Your task to perform on an android device: toggle pop-ups in chrome Image 0: 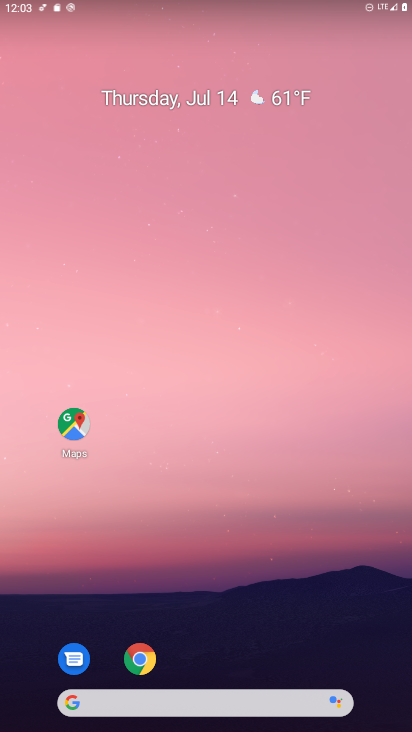
Step 0: click (141, 660)
Your task to perform on an android device: toggle pop-ups in chrome Image 1: 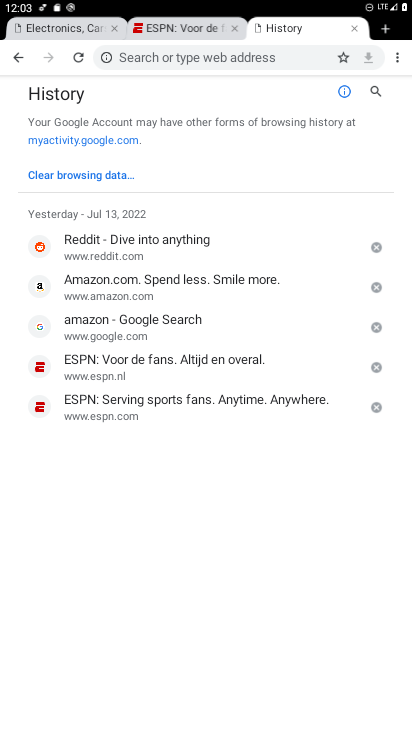
Step 1: click (396, 59)
Your task to perform on an android device: toggle pop-ups in chrome Image 2: 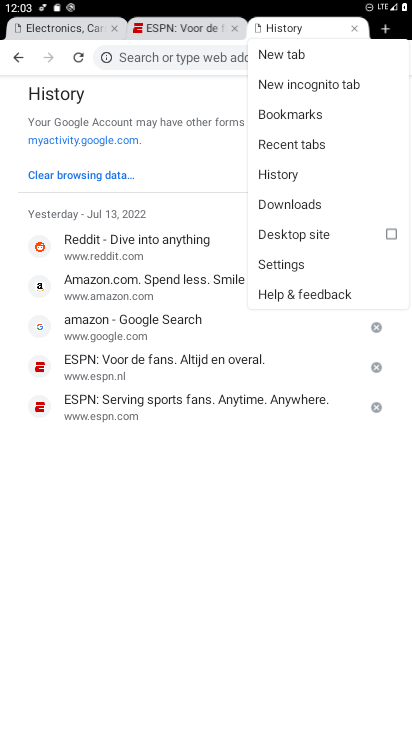
Step 2: click (284, 260)
Your task to perform on an android device: toggle pop-ups in chrome Image 3: 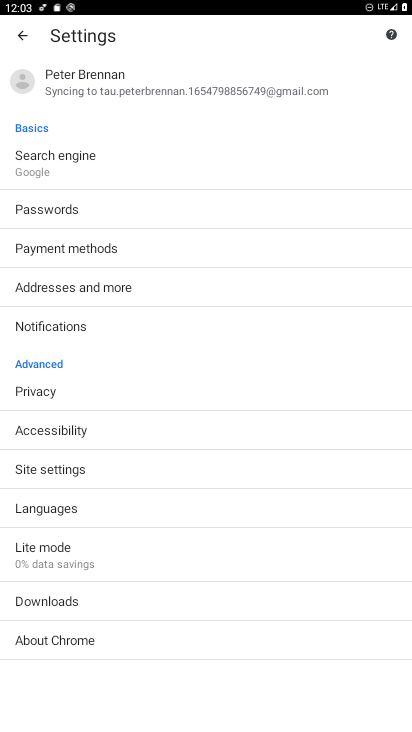
Step 3: click (42, 468)
Your task to perform on an android device: toggle pop-ups in chrome Image 4: 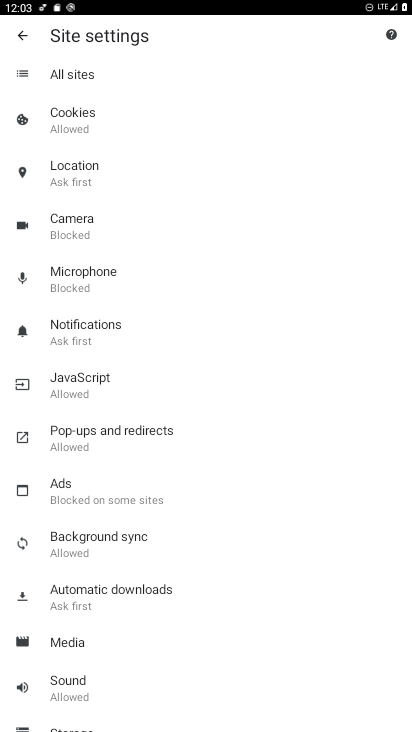
Step 4: click (76, 431)
Your task to perform on an android device: toggle pop-ups in chrome Image 5: 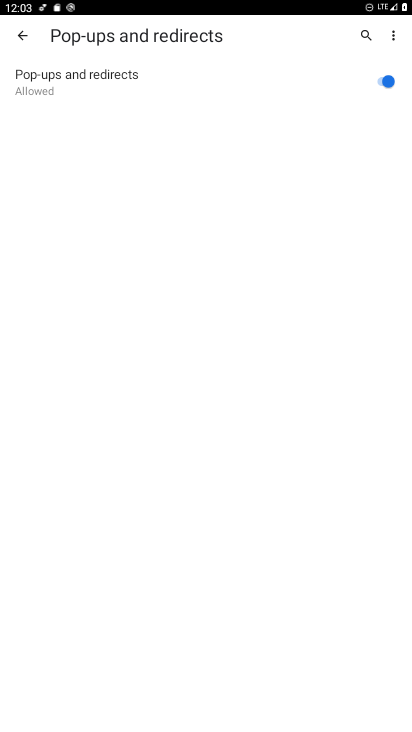
Step 5: click (376, 81)
Your task to perform on an android device: toggle pop-ups in chrome Image 6: 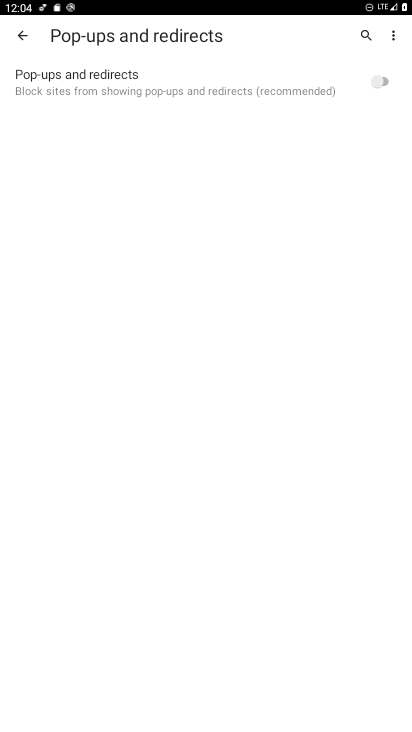
Step 6: task complete